Your task to perform on an android device: open sync settings in chrome Image 0: 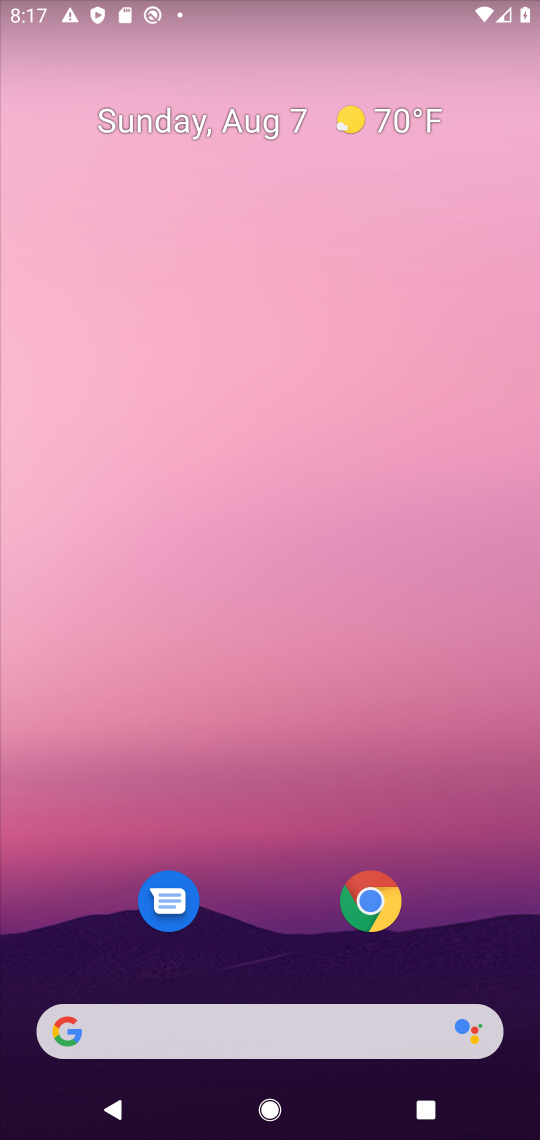
Step 0: click (371, 907)
Your task to perform on an android device: open sync settings in chrome Image 1: 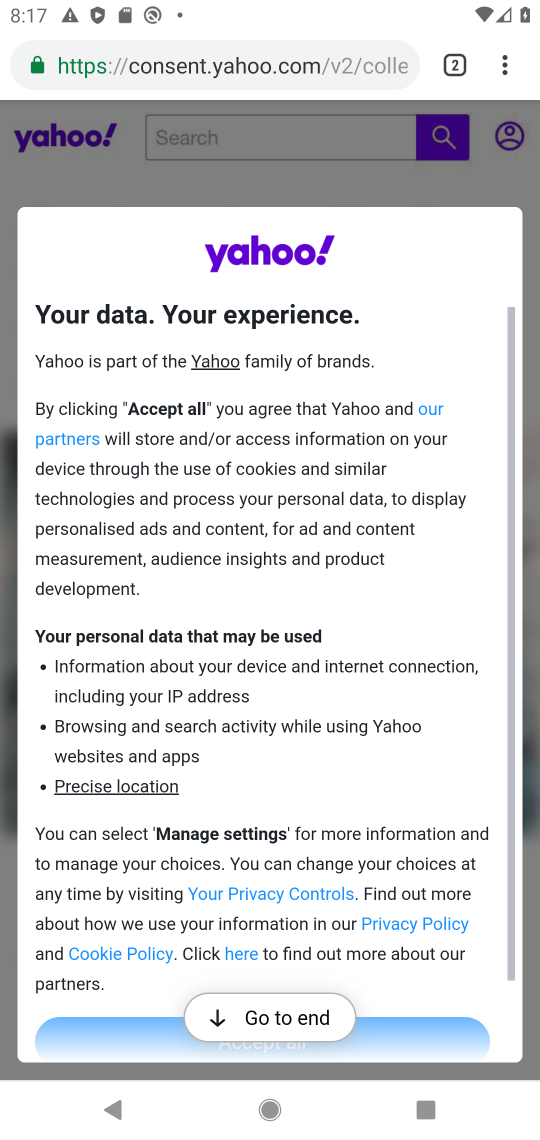
Step 1: click (508, 72)
Your task to perform on an android device: open sync settings in chrome Image 2: 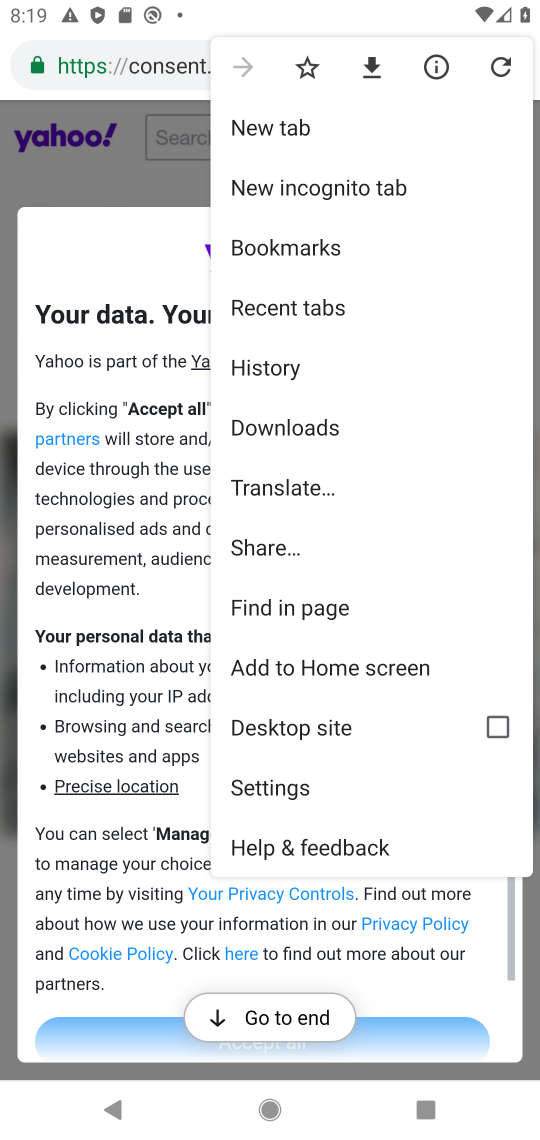
Step 2: click (276, 793)
Your task to perform on an android device: open sync settings in chrome Image 3: 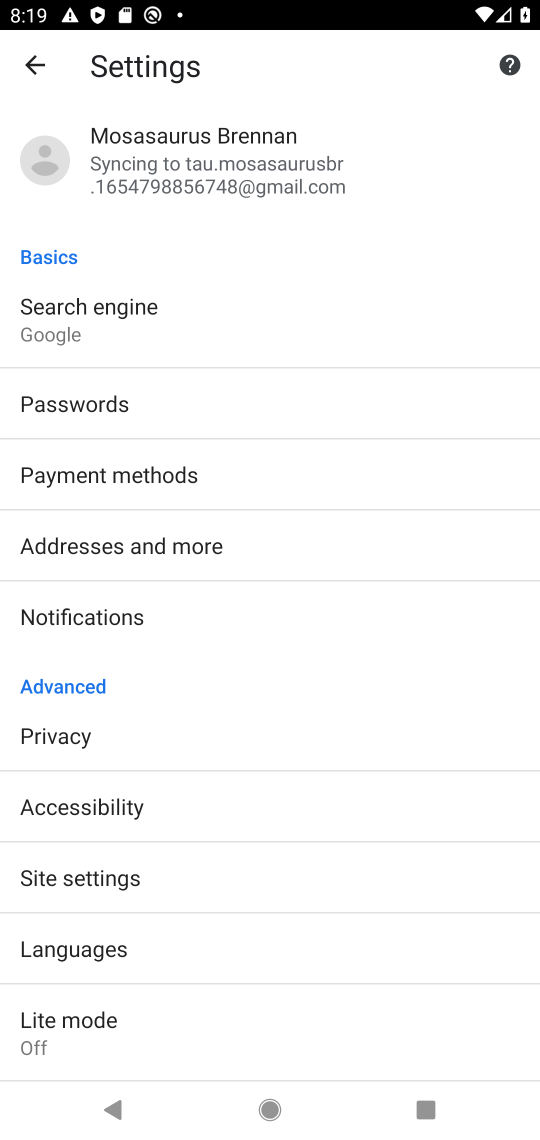
Step 3: drag from (343, 652) to (291, 49)
Your task to perform on an android device: open sync settings in chrome Image 4: 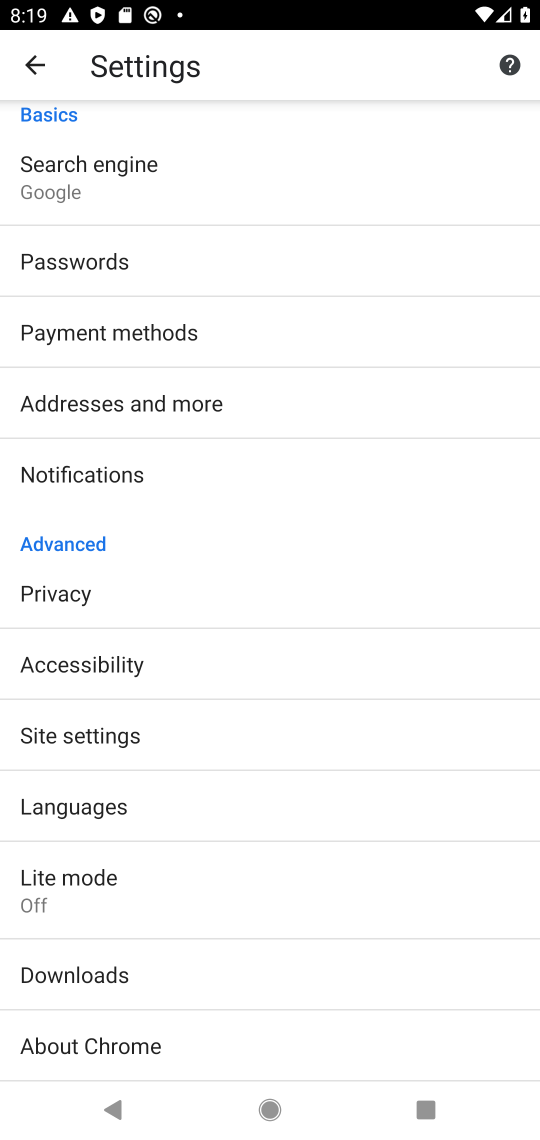
Step 4: click (116, 720)
Your task to perform on an android device: open sync settings in chrome Image 5: 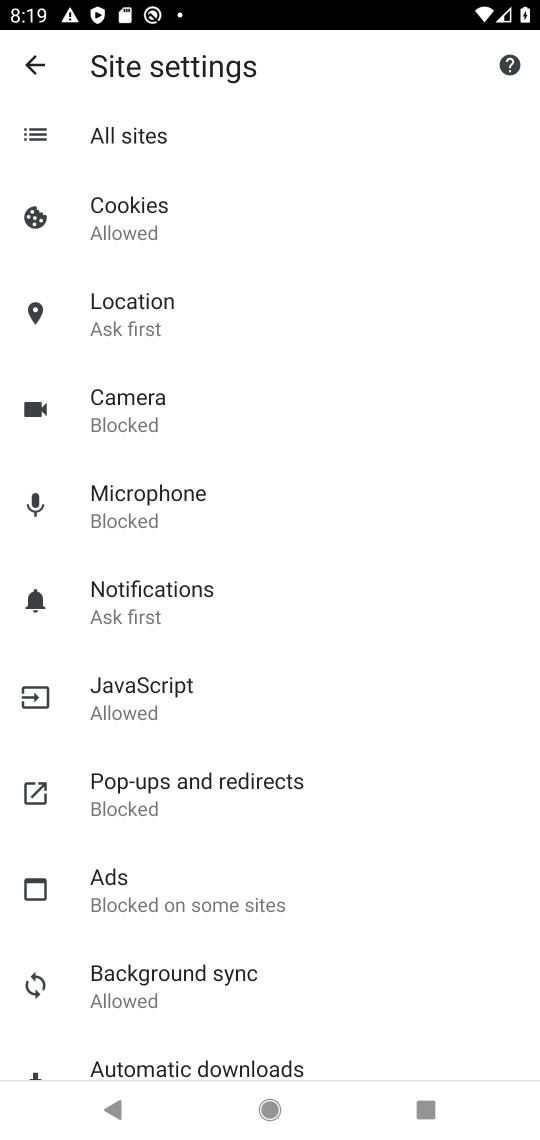
Step 5: drag from (436, 601) to (427, 441)
Your task to perform on an android device: open sync settings in chrome Image 6: 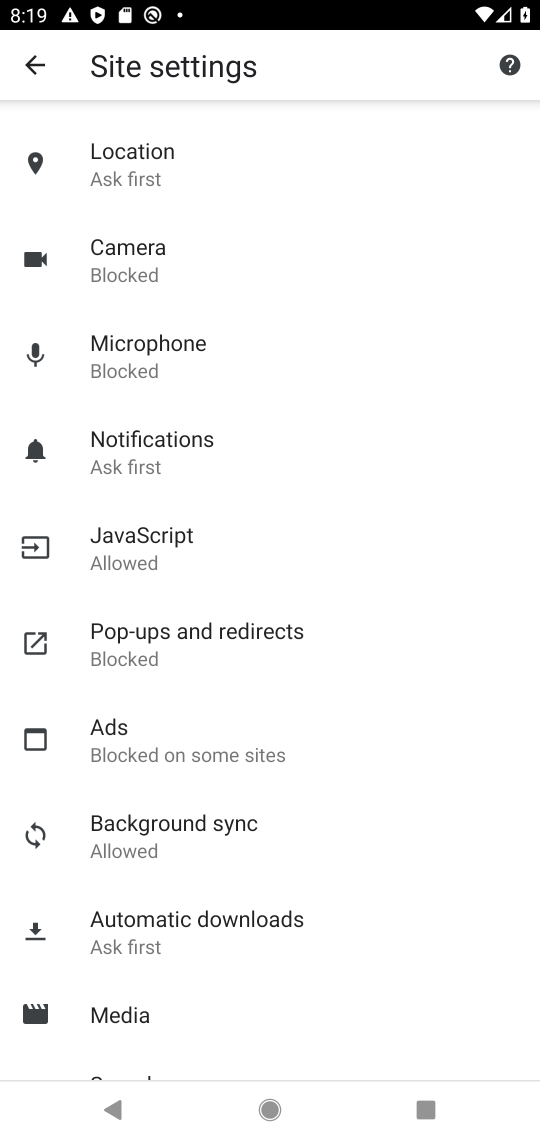
Step 6: click (222, 828)
Your task to perform on an android device: open sync settings in chrome Image 7: 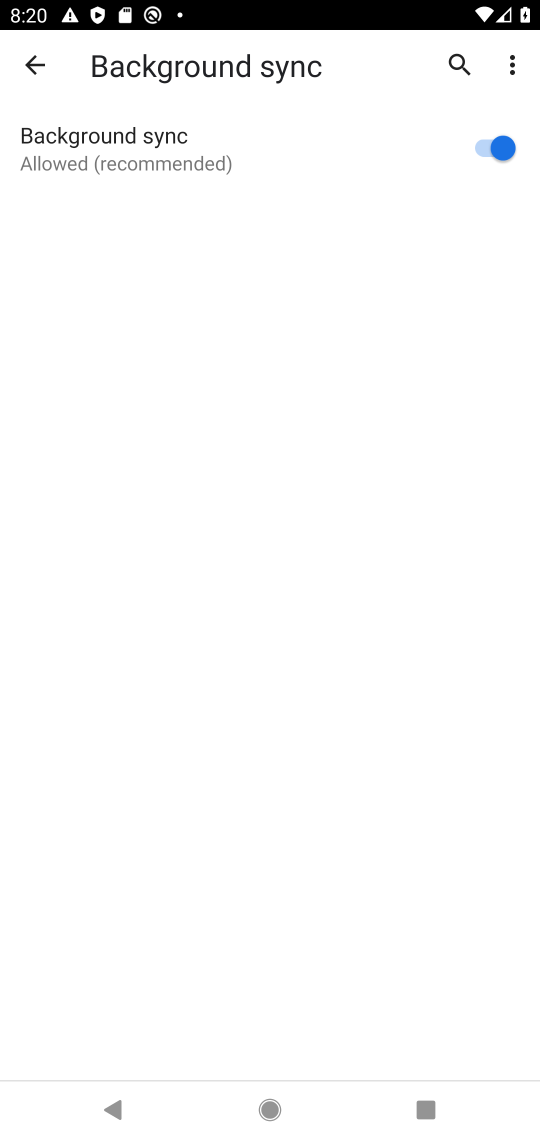
Step 7: task complete